Your task to perform on an android device: Open internet settings Image 0: 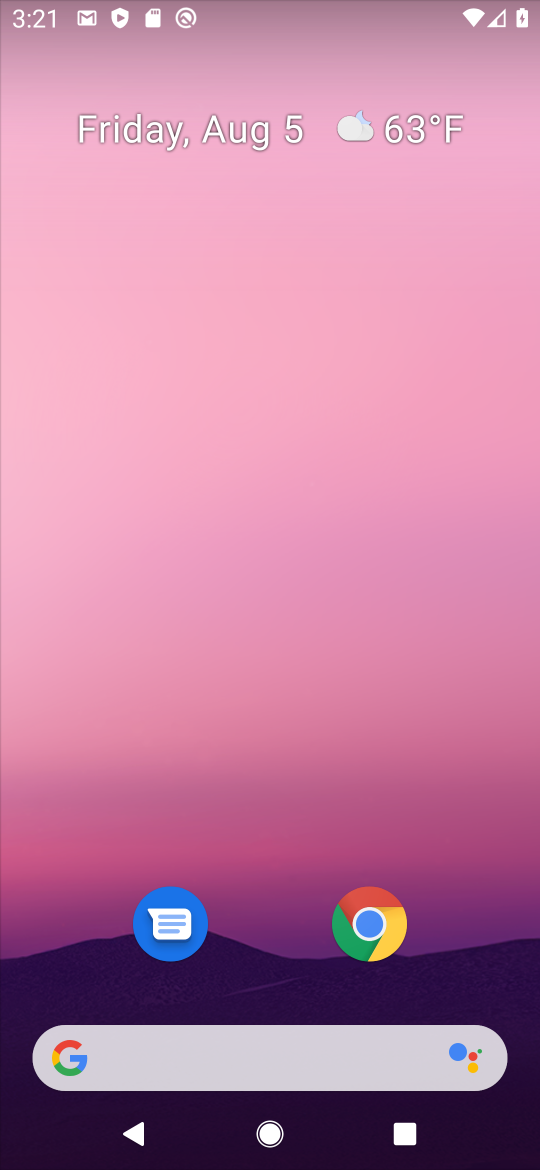
Step 0: drag from (285, 534) to (298, 99)
Your task to perform on an android device: Open internet settings Image 1: 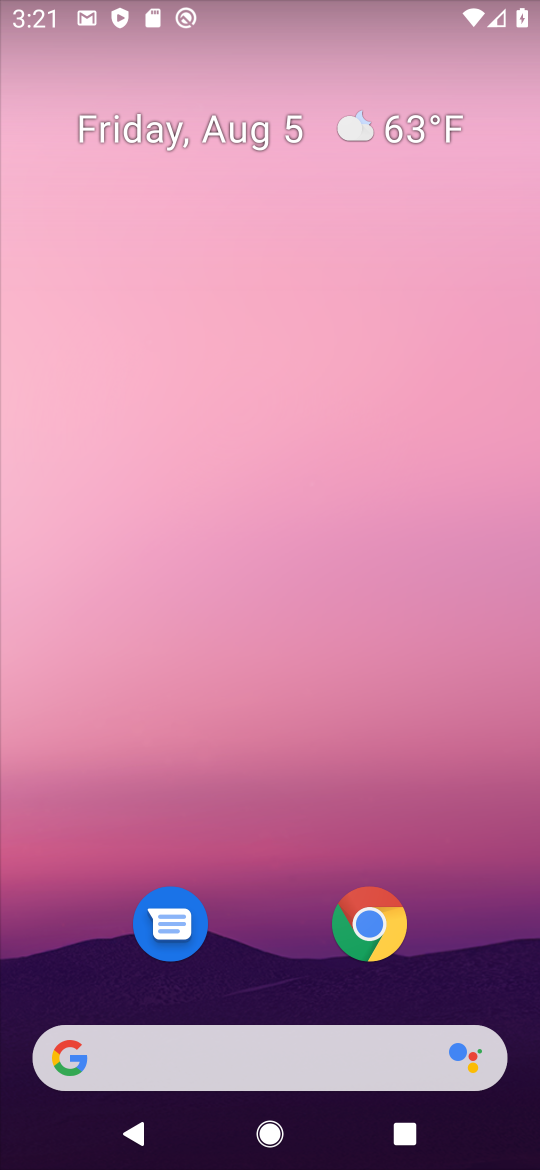
Step 1: drag from (268, 901) to (263, 57)
Your task to perform on an android device: Open internet settings Image 2: 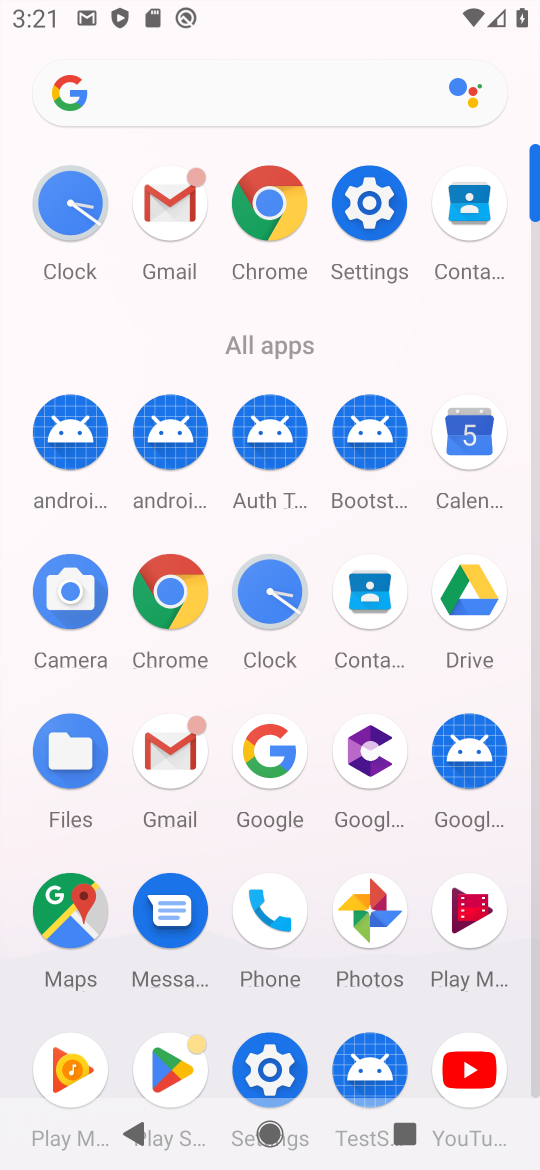
Step 2: click (382, 216)
Your task to perform on an android device: Open internet settings Image 3: 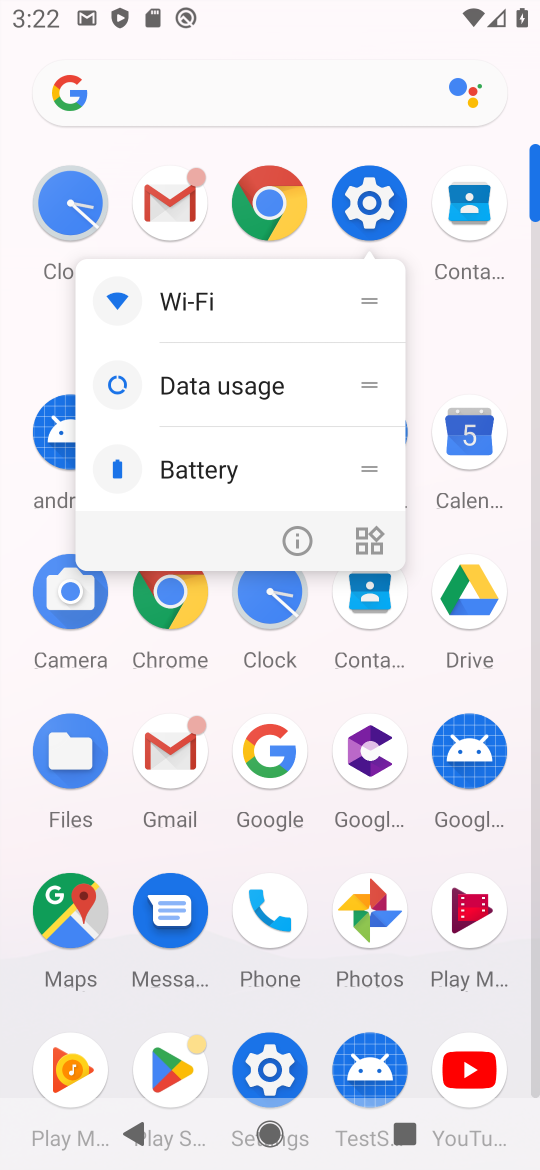
Step 3: click (267, 1054)
Your task to perform on an android device: Open internet settings Image 4: 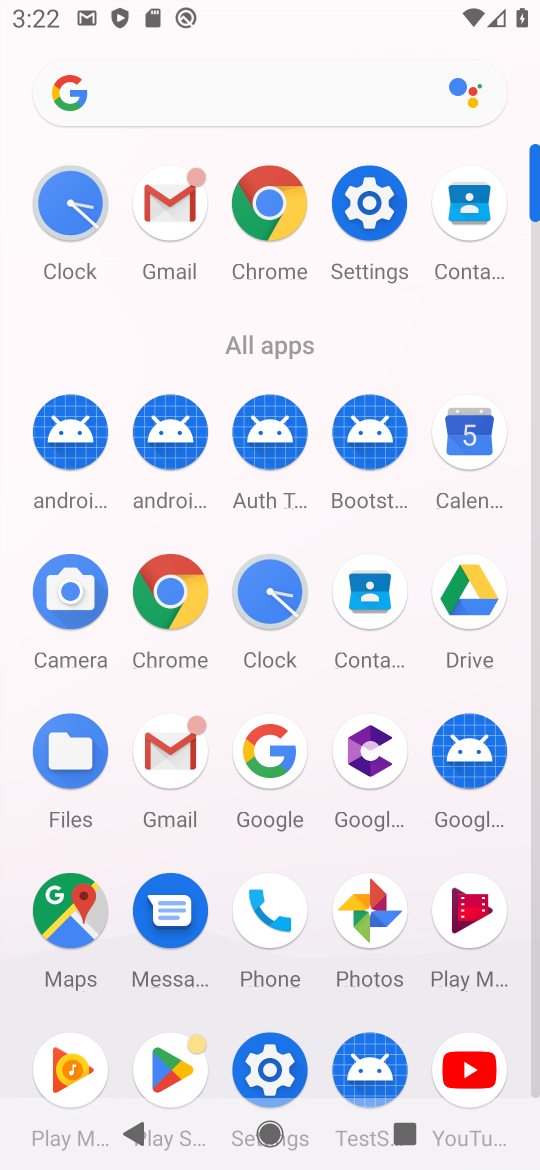
Step 4: click (256, 1080)
Your task to perform on an android device: Open internet settings Image 5: 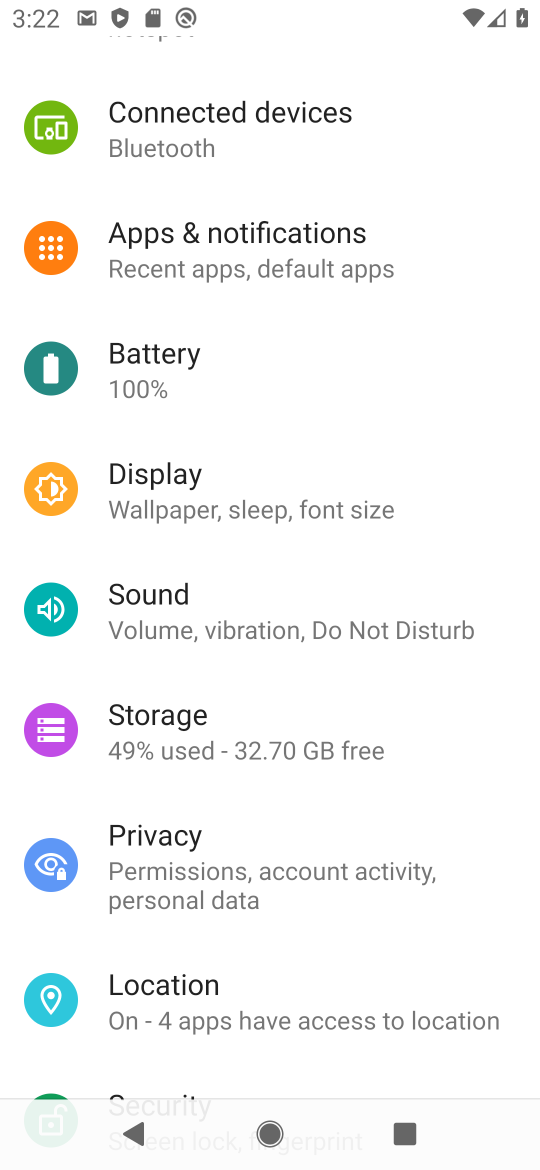
Step 5: drag from (351, 287) to (468, 1053)
Your task to perform on an android device: Open internet settings Image 6: 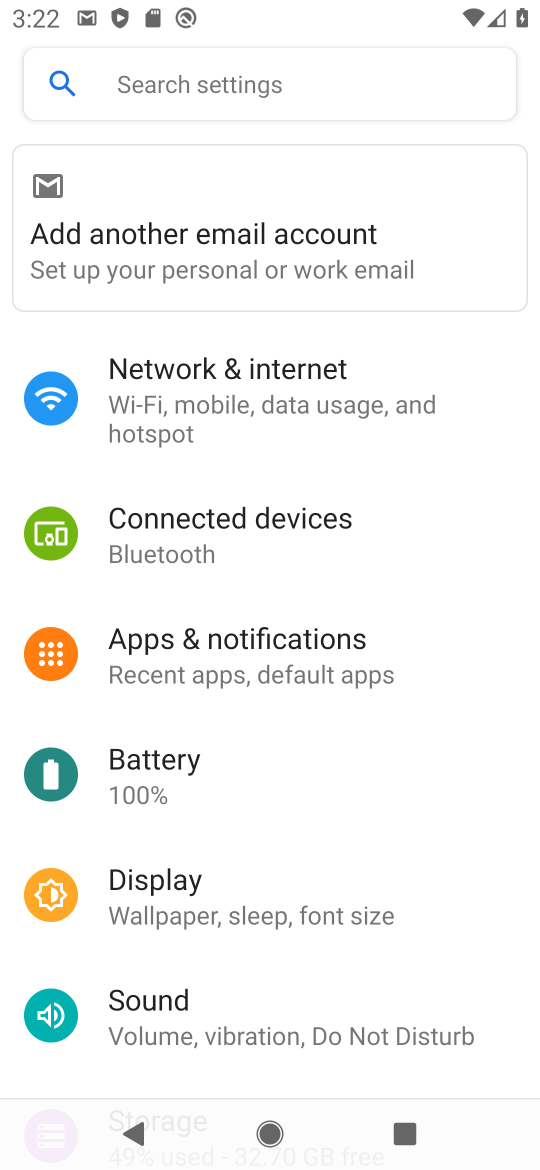
Step 6: click (244, 429)
Your task to perform on an android device: Open internet settings Image 7: 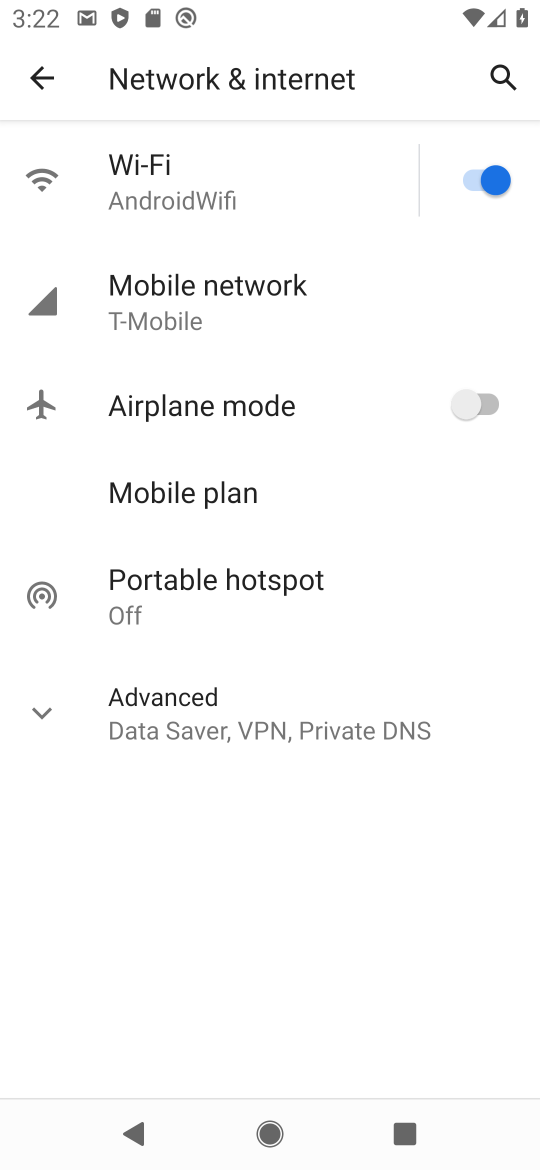
Step 7: click (274, 293)
Your task to perform on an android device: Open internet settings Image 8: 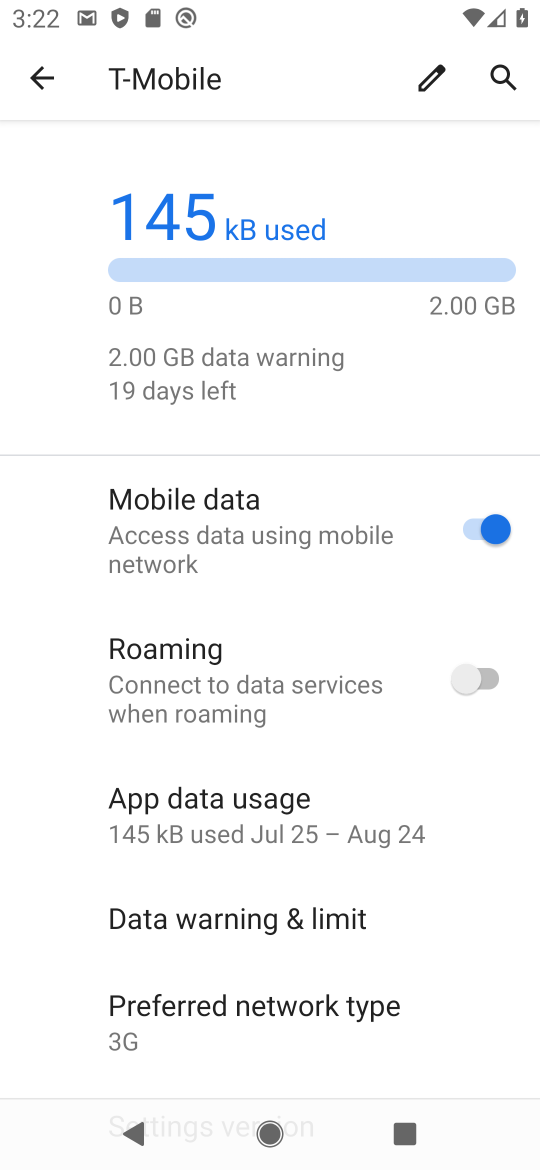
Step 8: task complete